Your task to perform on an android device: manage bookmarks in the chrome app Image 0: 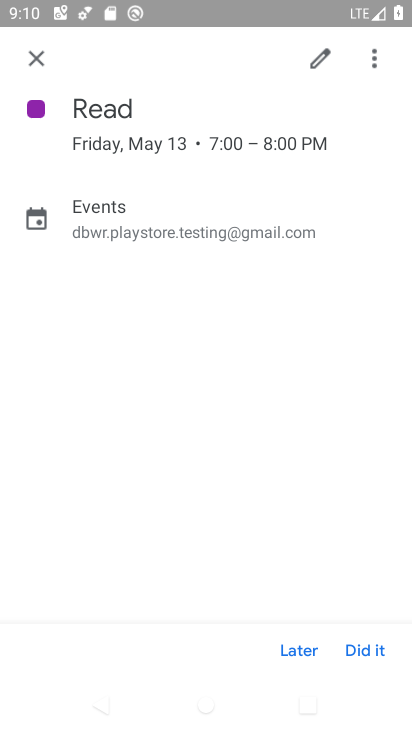
Step 0: click (35, 50)
Your task to perform on an android device: manage bookmarks in the chrome app Image 1: 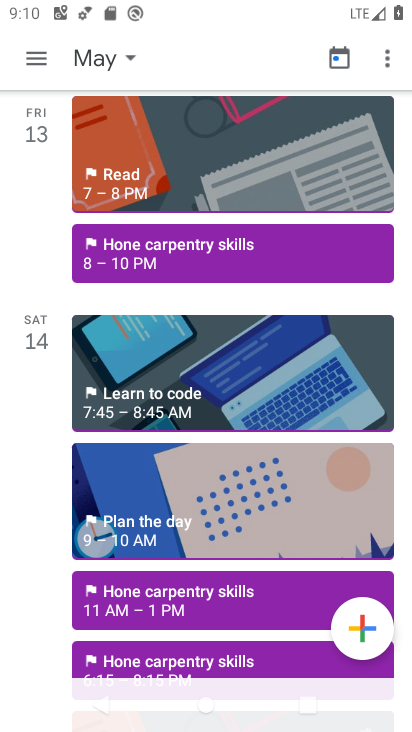
Step 1: click (41, 59)
Your task to perform on an android device: manage bookmarks in the chrome app Image 2: 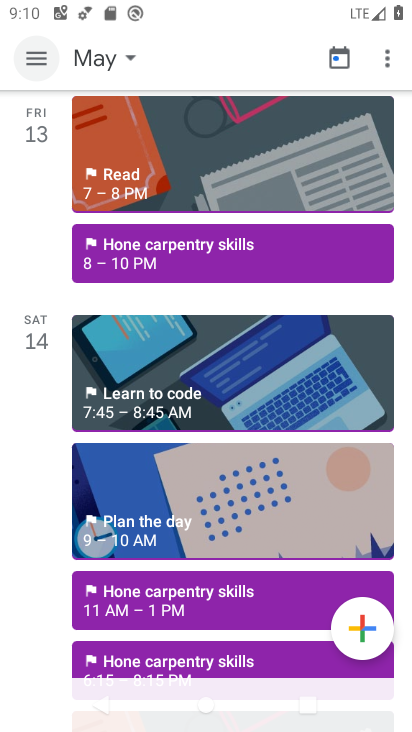
Step 2: click (41, 59)
Your task to perform on an android device: manage bookmarks in the chrome app Image 3: 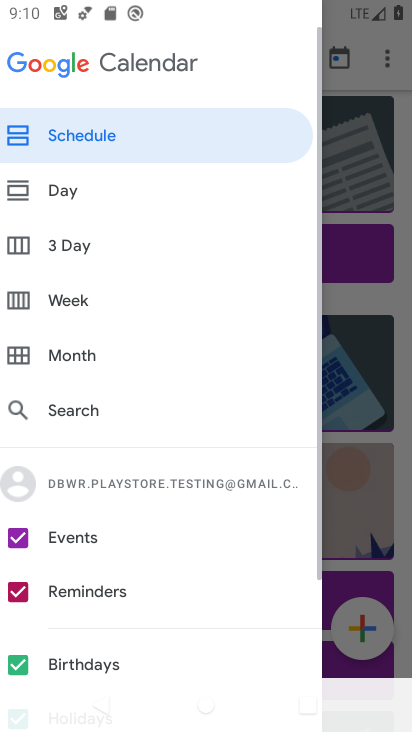
Step 3: click (41, 59)
Your task to perform on an android device: manage bookmarks in the chrome app Image 4: 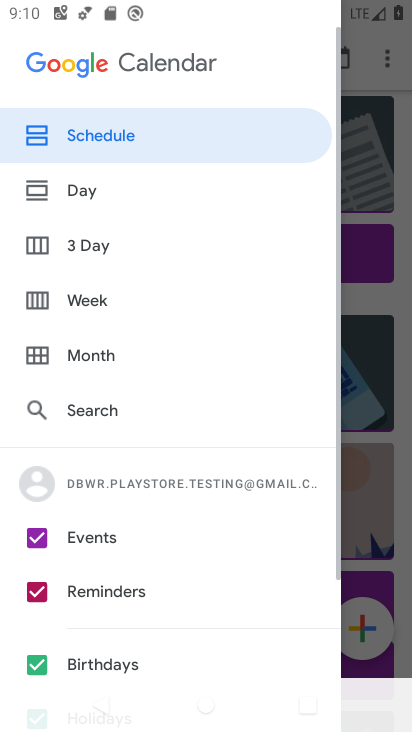
Step 4: click (41, 59)
Your task to perform on an android device: manage bookmarks in the chrome app Image 5: 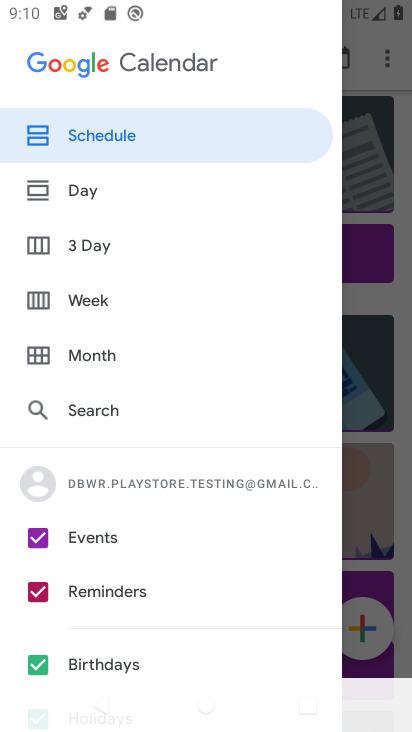
Step 5: press back button
Your task to perform on an android device: manage bookmarks in the chrome app Image 6: 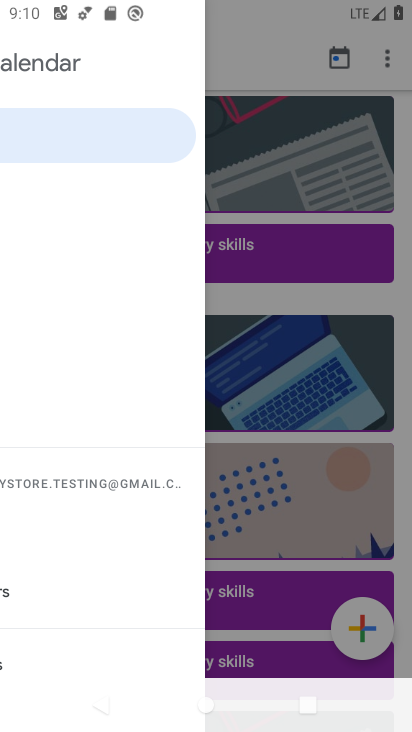
Step 6: press back button
Your task to perform on an android device: manage bookmarks in the chrome app Image 7: 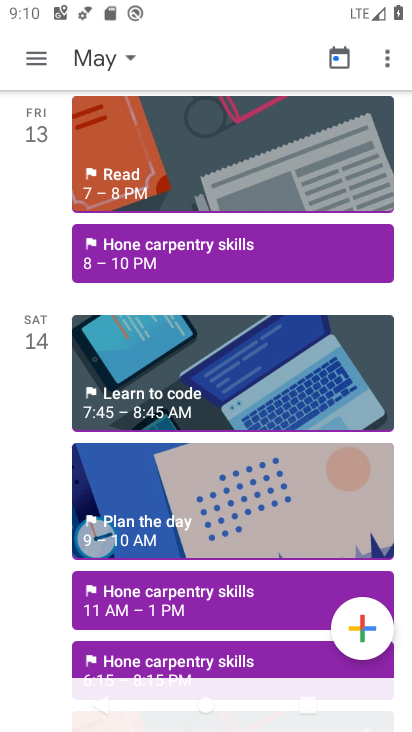
Step 7: press back button
Your task to perform on an android device: manage bookmarks in the chrome app Image 8: 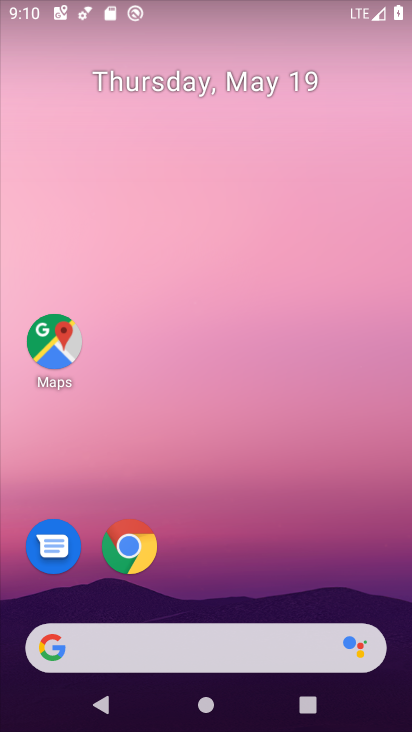
Step 8: press home button
Your task to perform on an android device: manage bookmarks in the chrome app Image 9: 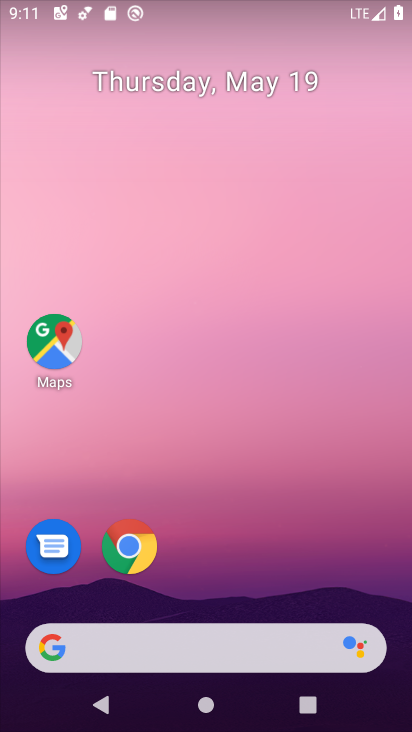
Step 9: drag from (330, 667) to (204, 110)
Your task to perform on an android device: manage bookmarks in the chrome app Image 10: 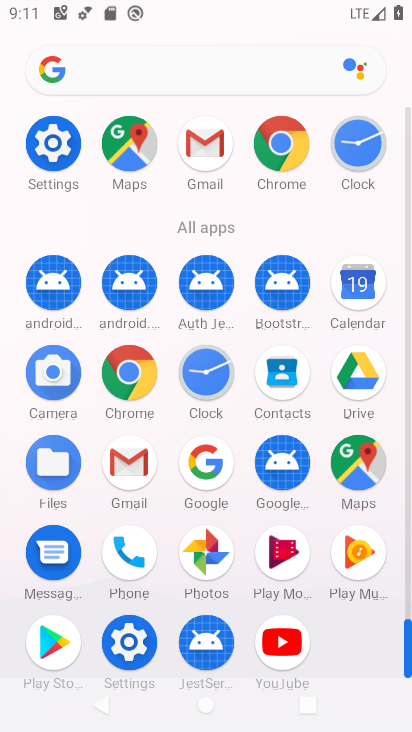
Step 10: click (277, 142)
Your task to perform on an android device: manage bookmarks in the chrome app Image 11: 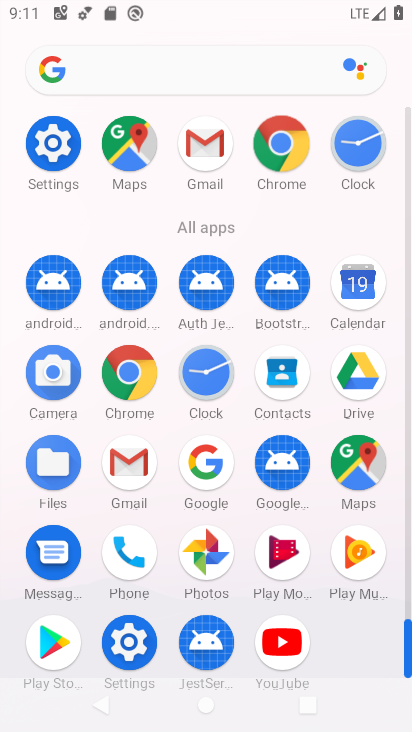
Step 11: click (277, 142)
Your task to perform on an android device: manage bookmarks in the chrome app Image 12: 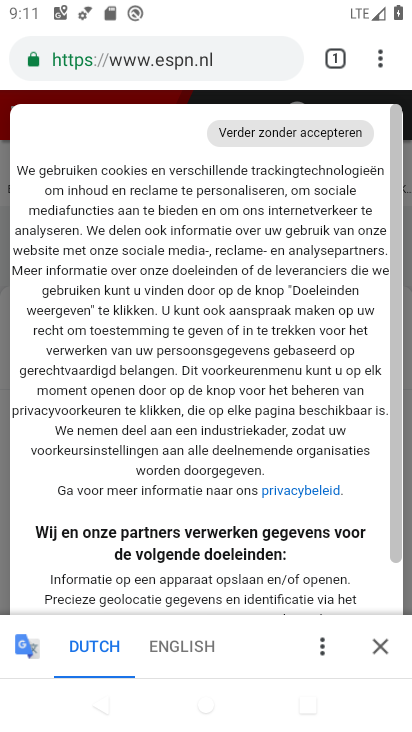
Step 12: drag from (378, 59) to (169, 585)
Your task to perform on an android device: manage bookmarks in the chrome app Image 13: 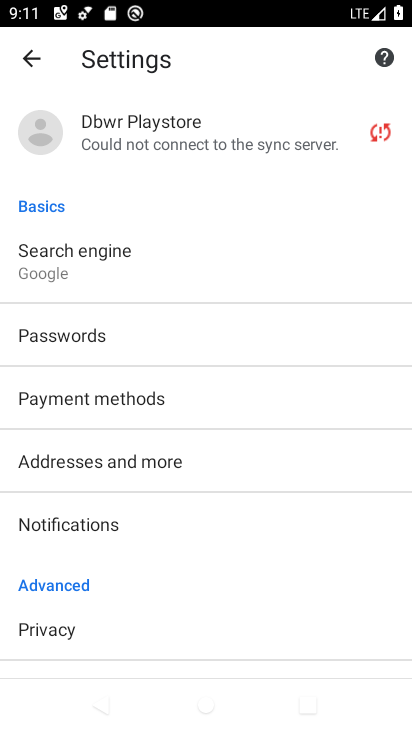
Step 13: click (28, 58)
Your task to perform on an android device: manage bookmarks in the chrome app Image 14: 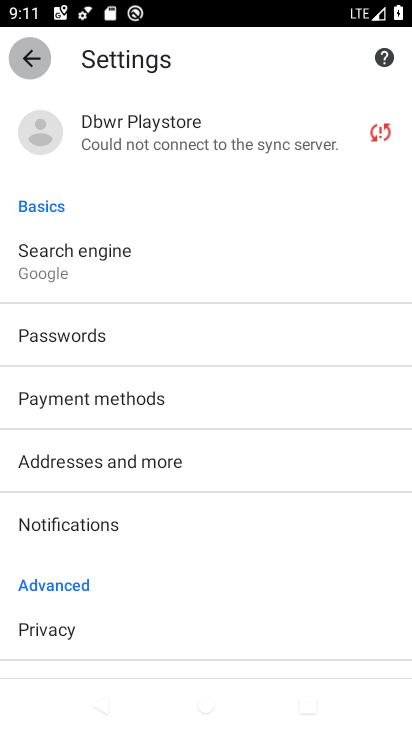
Step 14: click (29, 57)
Your task to perform on an android device: manage bookmarks in the chrome app Image 15: 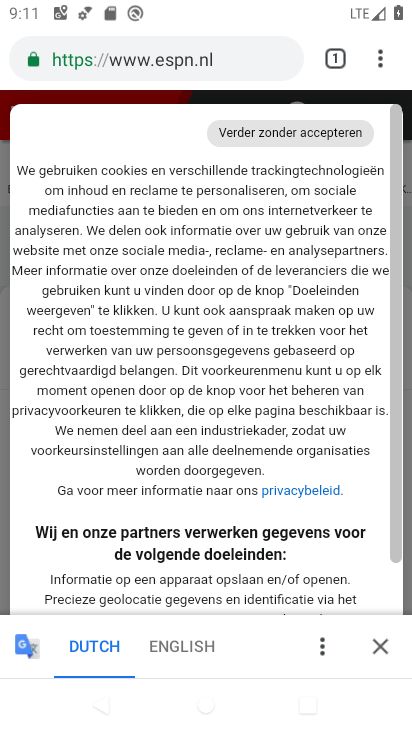
Step 15: drag from (378, 50) to (188, 203)
Your task to perform on an android device: manage bookmarks in the chrome app Image 16: 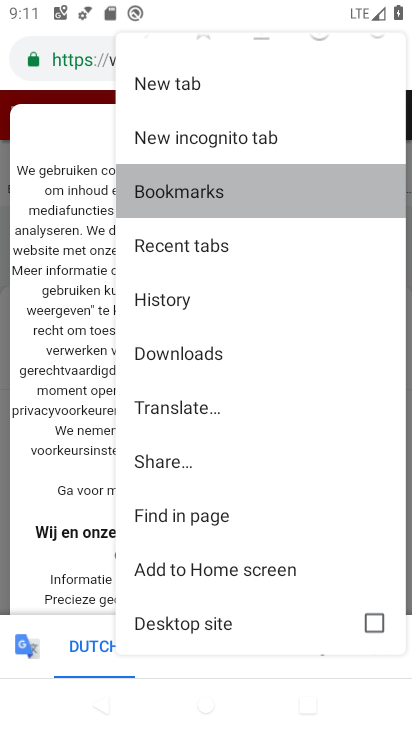
Step 16: click (190, 205)
Your task to perform on an android device: manage bookmarks in the chrome app Image 17: 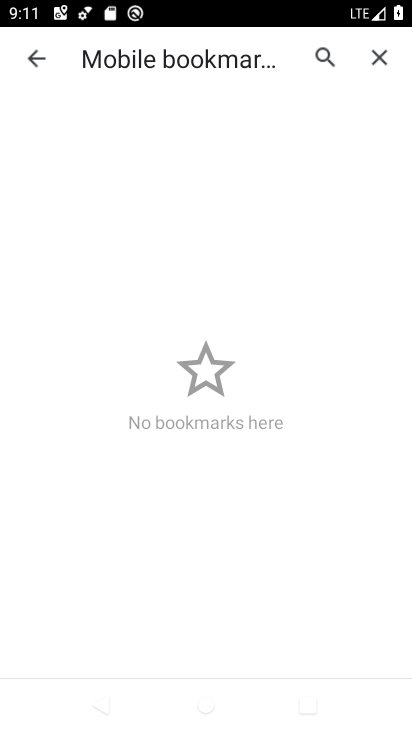
Step 17: click (30, 60)
Your task to perform on an android device: manage bookmarks in the chrome app Image 18: 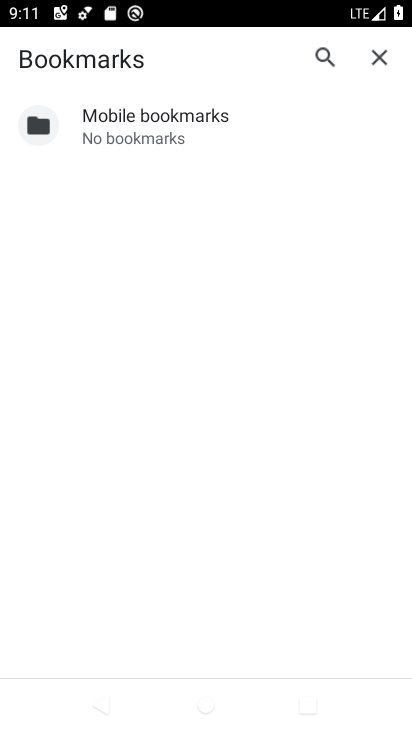
Step 18: press back button
Your task to perform on an android device: manage bookmarks in the chrome app Image 19: 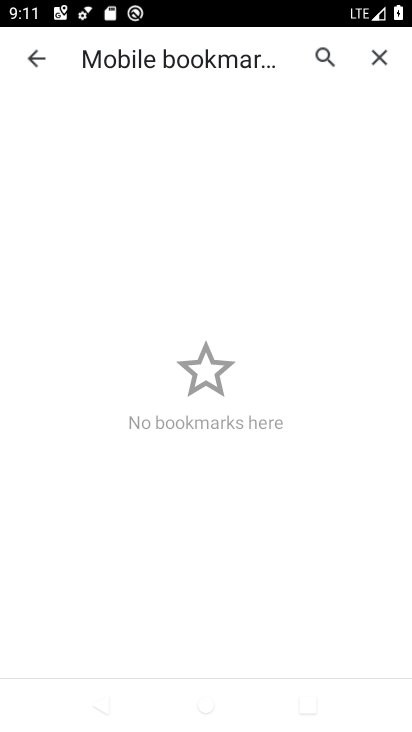
Step 19: press back button
Your task to perform on an android device: manage bookmarks in the chrome app Image 20: 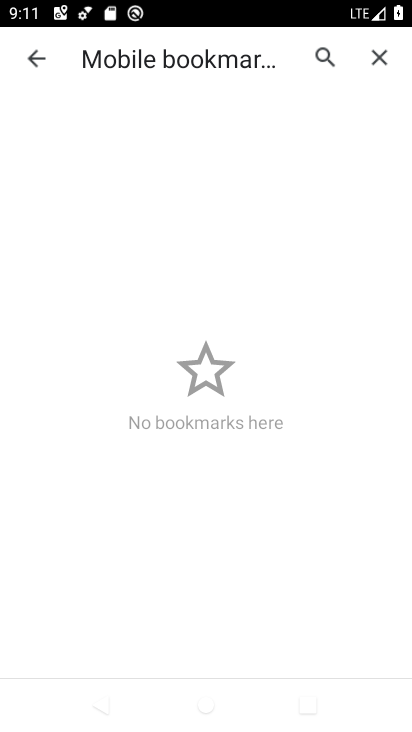
Step 20: press back button
Your task to perform on an android device: manage bookmarks in the chrome app Image 21: 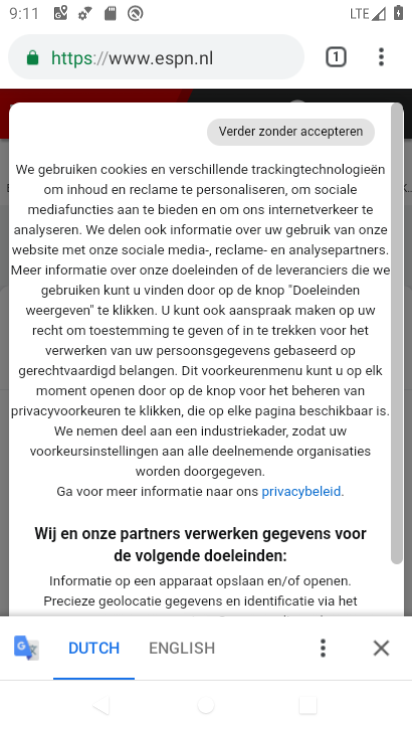
Step 21: press back button
Your task to perform on an android device: manage bookmarks in the chrome app Image 22: 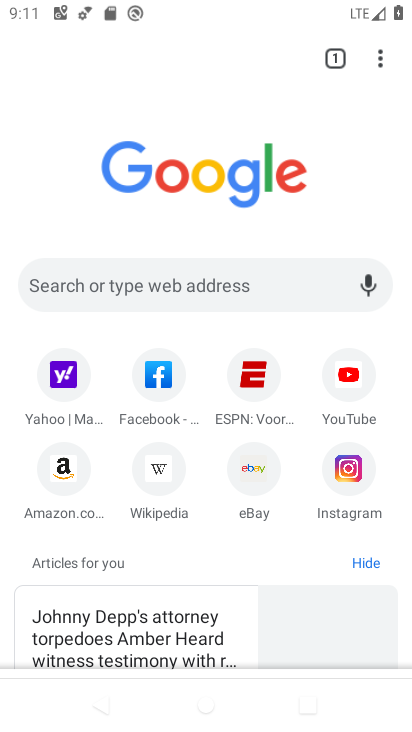
Step 22: press home button
Your task to perform on an android device: manage bookmarks in the chrome app Image 23: 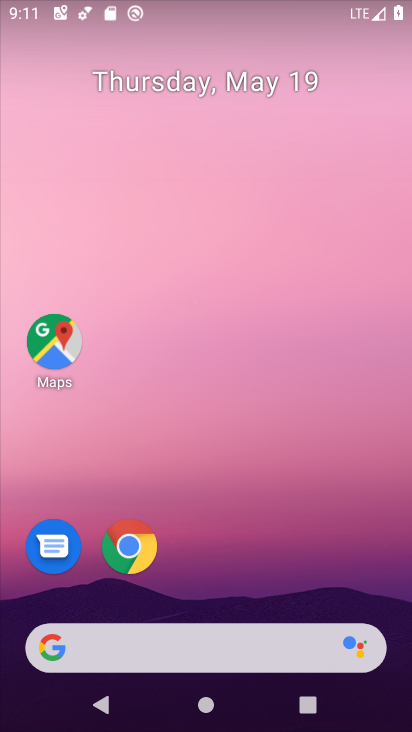
Step 23: drag from (277, 636) to (146, 90)
Your task to perform on an android device: manage bookmarks in the chrome app Image 24: 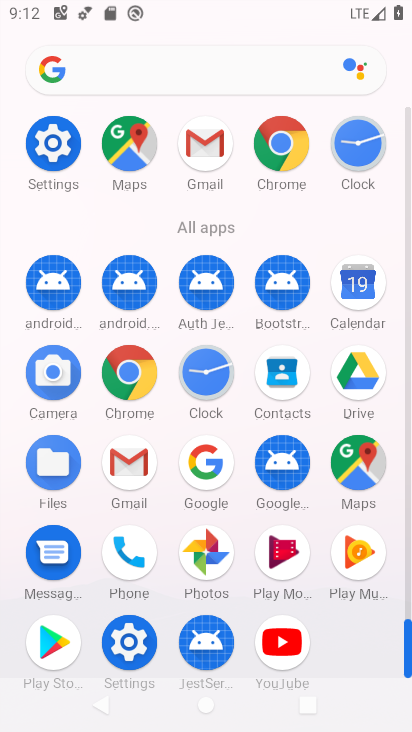
Step 24: click (122, 362)
Your task to perform on an android device: manage bookmarks in the chrome app Image 25: 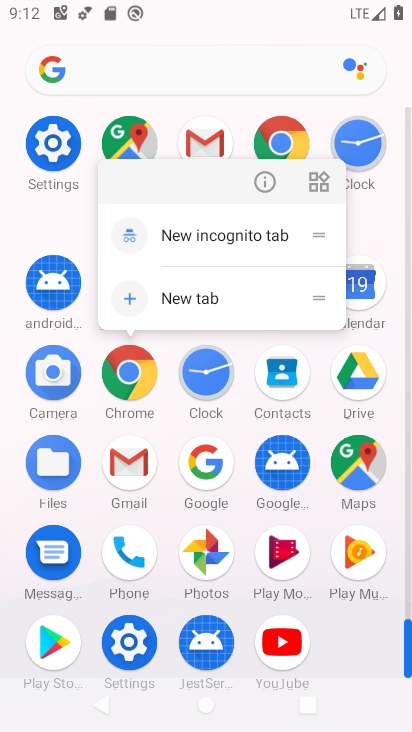
Step 25: click (130, 361)
Your task to perform on an android device: manage bookmarks in the chrome app Image 26: 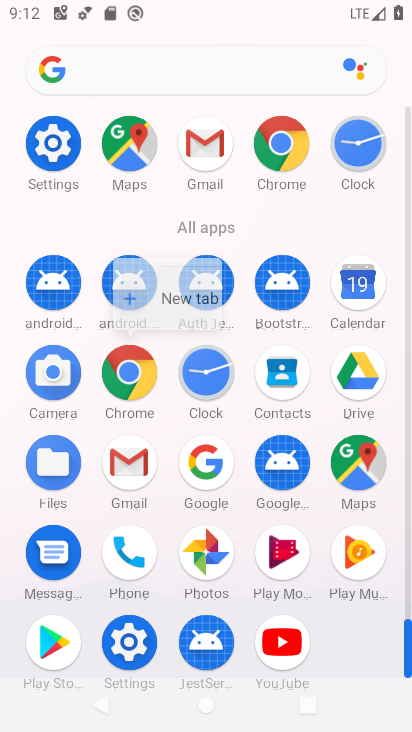
Step 26: click (130, 361)
Your task to perform on an android device: manage bookmarks in the chrome app Image 27: 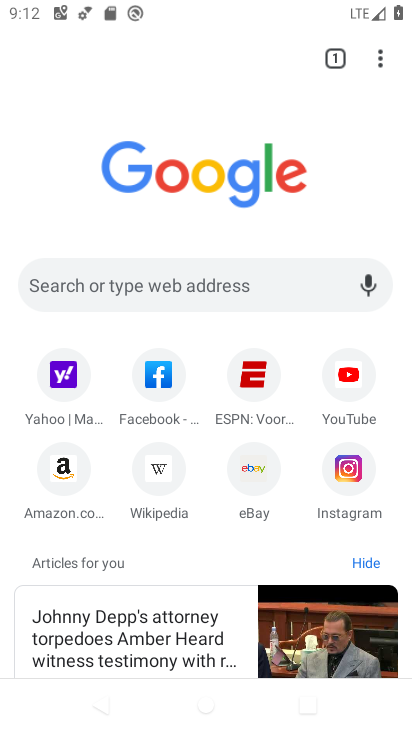
Step 27: drag from (378, 43) to (164, 227)
Your task to perform on an android device: manage bookmarks in the chrome app Image 28: 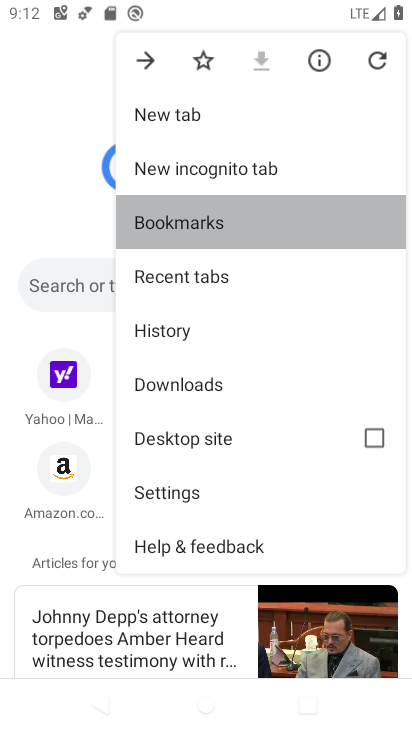
Step 28: click (173, 222)
Your task to perform on an android device: manage bookmarks in the chrome app Image 29: 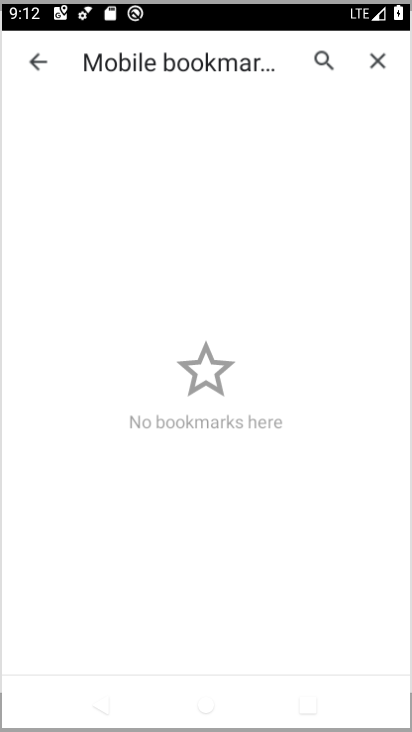
Step 29: click (174, 221)
Your task to perform on an android device: manage bookmarks in the chrome app Image 30: 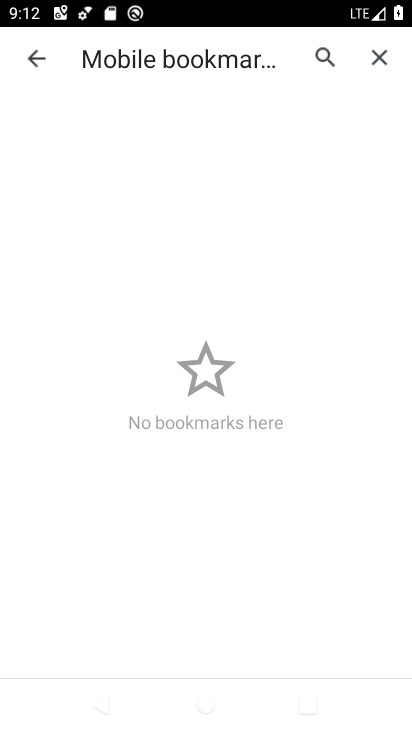
Step 30: task complete